Your task to perform on an android device: add a contact in the contacts app Image 0: 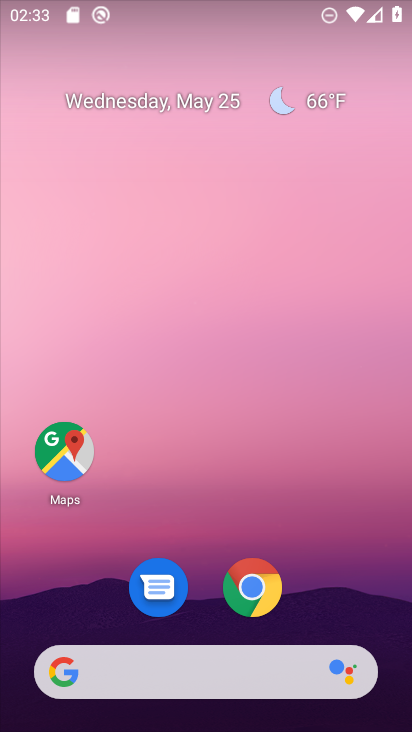
Step 0: drag from (362, 593) to (339, 193)
Your task to perform on an android device: add a contact in the contacts app Image 1: 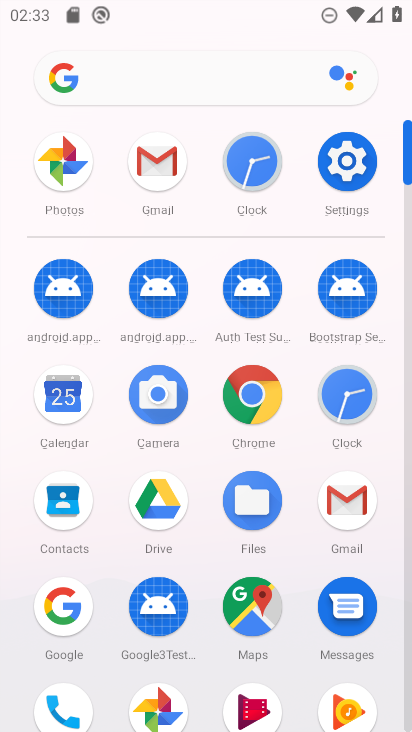
Step 1: click (43, 510)
Your task to perform on an android device: add a contact in the contacts app Image 2: 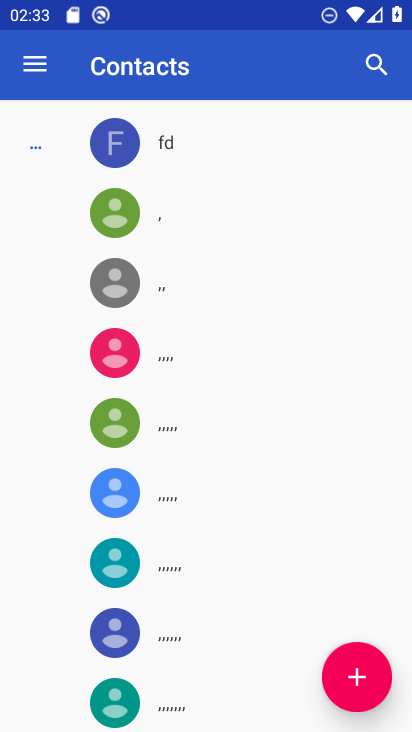
Step 2: click (367, 679)
Your task to perform on an android device: add a contact in the contacts app Image 3: 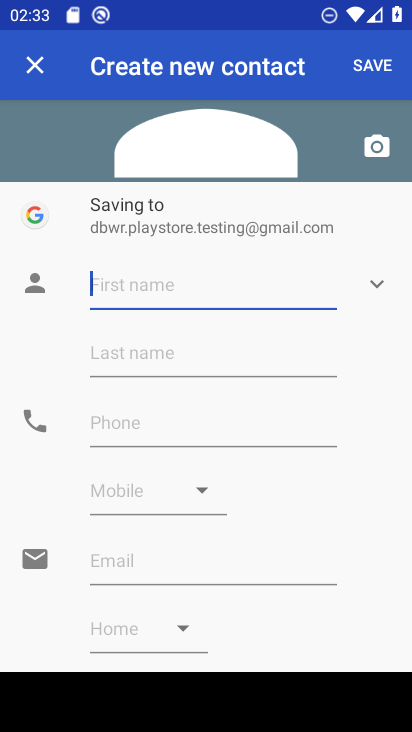
Step 3: type "mmmmmm"
Your task to perform on an android device: add a contact in the contacts app Image 4: 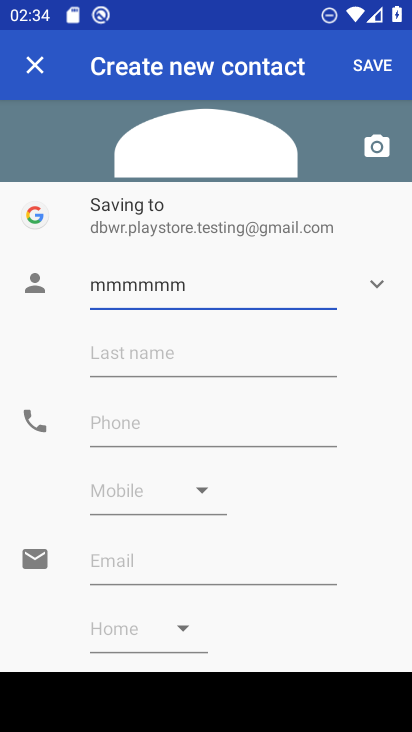
Step 4: click (168, 436)
Your task to perform on an android device: add a contact in the contacts app Image 5: 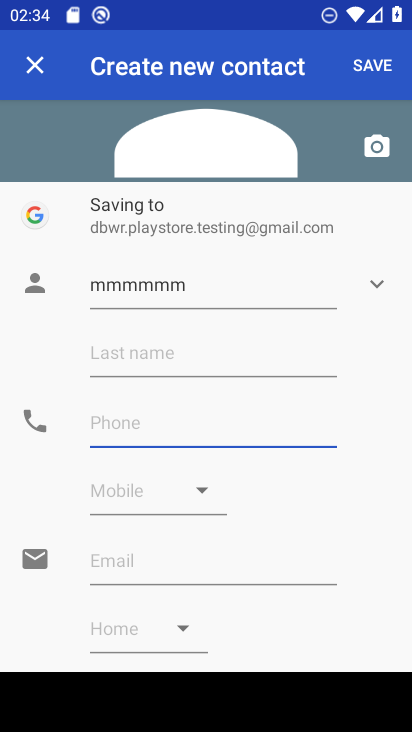
Step 5: type "77899000"
Your task to perform on an android device: add a contact in the contacts app Image 6: 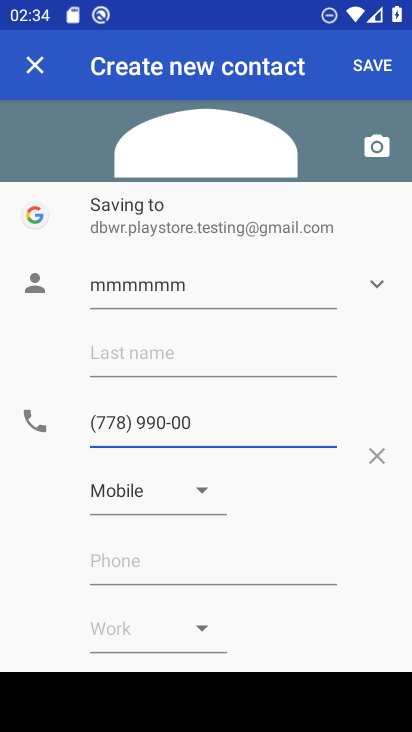
Step 6: click (359, 72)
Your task to perform on an android device: add a contact in the contacts app Image 7: 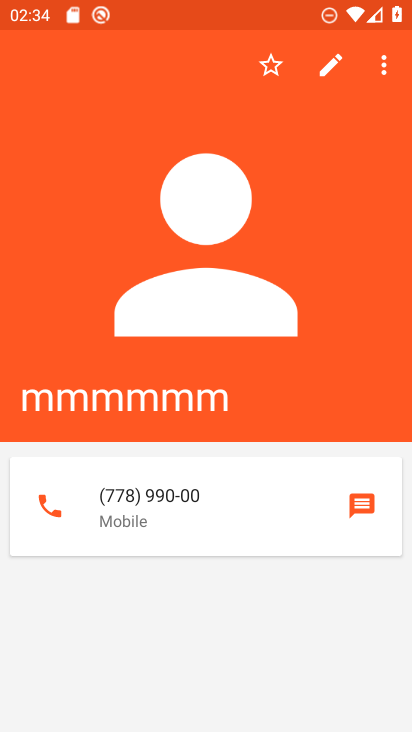
Step 7: task complete